Your task to perform on an android device: Open the calendar app, open the side menu, and click the "Day" option Image 0: 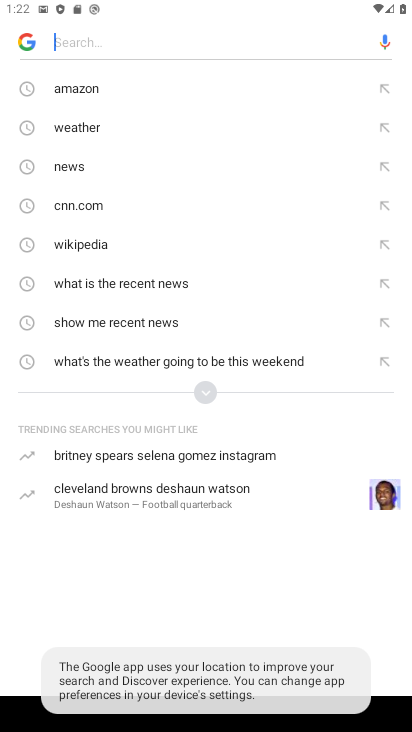
Step 0: press home button
Your task to perform on an android device: Open the calendar app, open the side menu, and click the "Day" option Image 1: 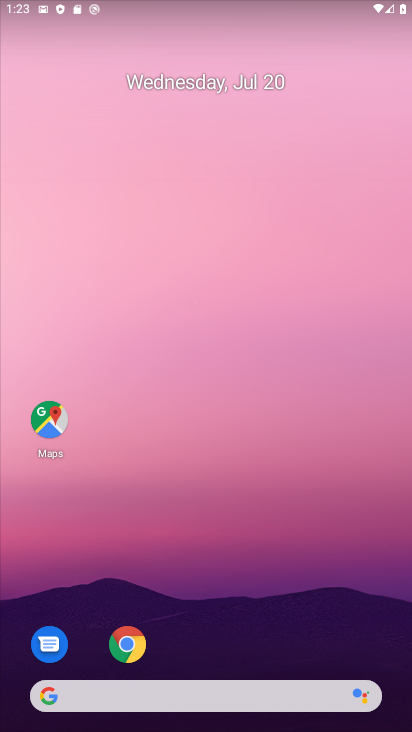
Step 1: drag from (202, 612) to (194, 8)
Your task to perform on an android device: Open the calendar app, open the side menu, and click the "Day" option Image 2: 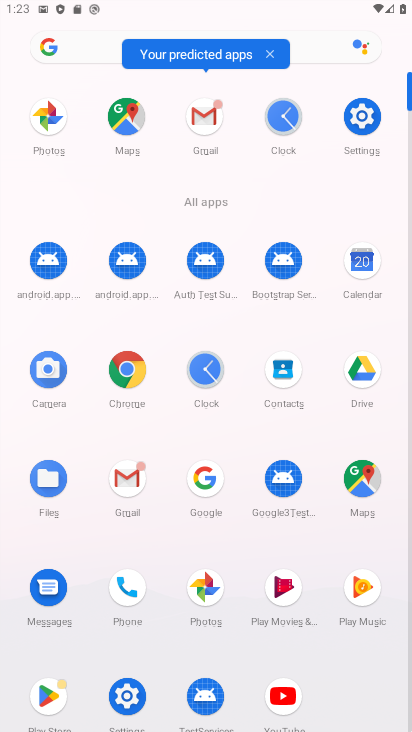
Step 2: click (364, 282)
Your task to perform on an android device: Open the calendar app, open the side menu, and click the "Day" option Image 3: 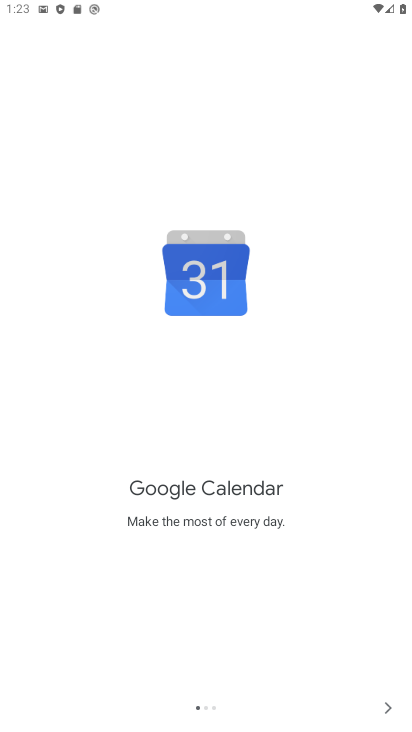
Step 3: click (390, 702)
Your task to perform on an android device: Open the calendar app, open the side menu, and click the "Day" option Image 4: 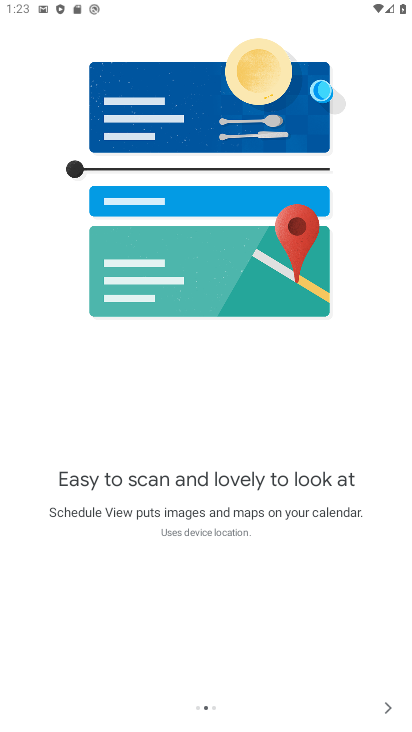
Step 4: click (387, 713)
Your task to perform on an android device: Open the calendar app, open the side menu, and click the "Day" option Image 5: 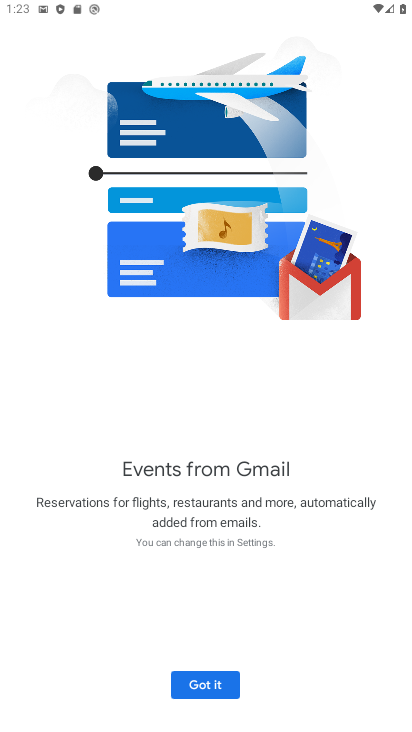
Step 5: click (219, 689)
Your task to perform on an android device: Open the calendar app, open the side menu, and click the "Day" option Image 6: 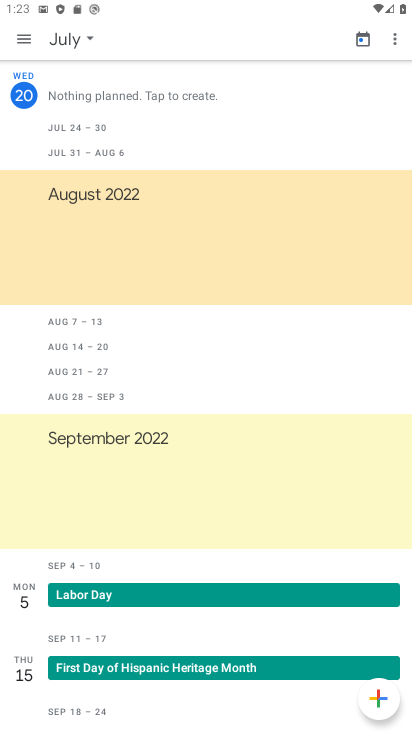
Step 6: click (24, 39)
Your task to perform on an android device: Open the calendar app, open the side menu, and click the "Day" option Image 7: 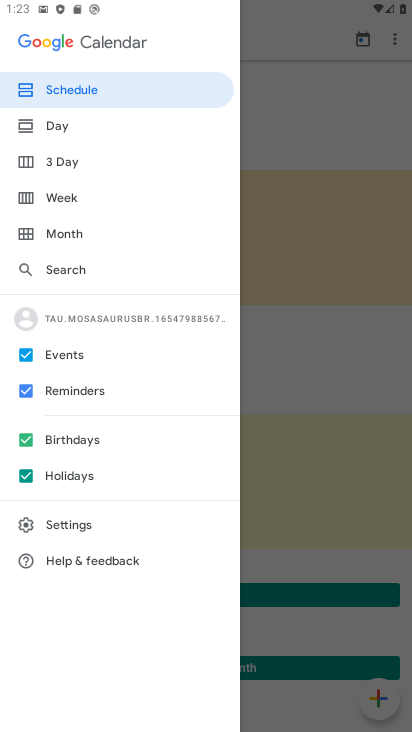
Step 7: click (60, 121)
Your task to perform on an android device: Open the calendar app, open the side menu, and click the "Day" option Image 8: 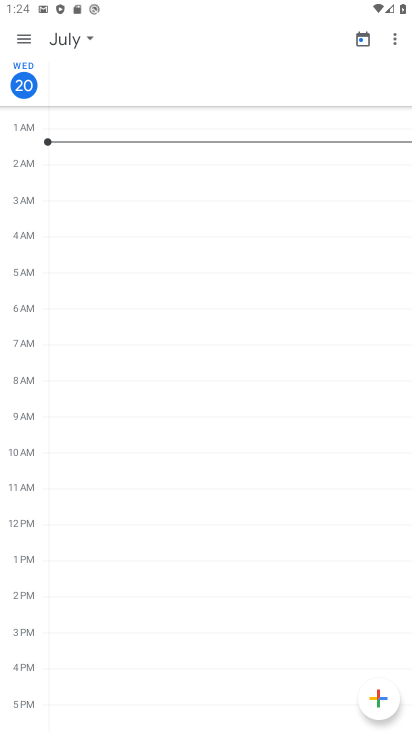
Step 8: task complete